Your task to perform on an android device: set the timer Image 0: 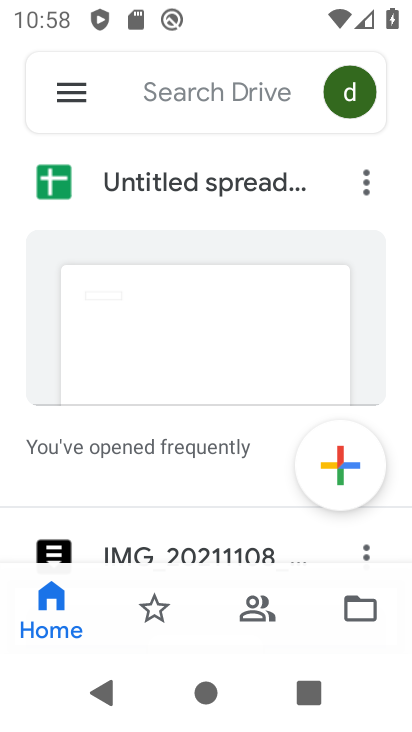
Step 0: press home button
Your task to perform on an android device: set the timer Image 1: 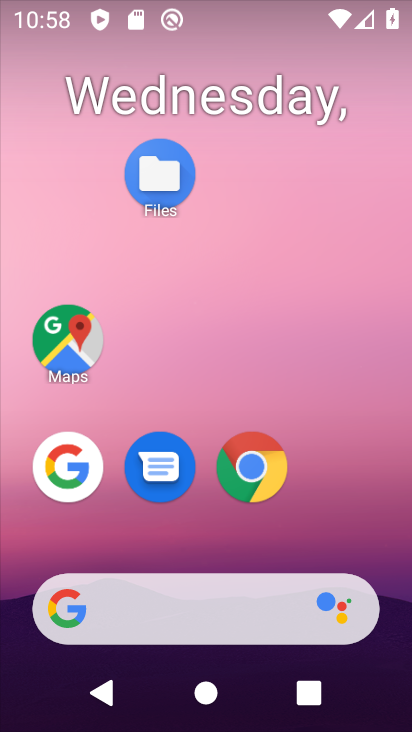
Step 1: drag from (193, 560) to (206, 146)
Your task to perform on an android device: set the timer Image 2: 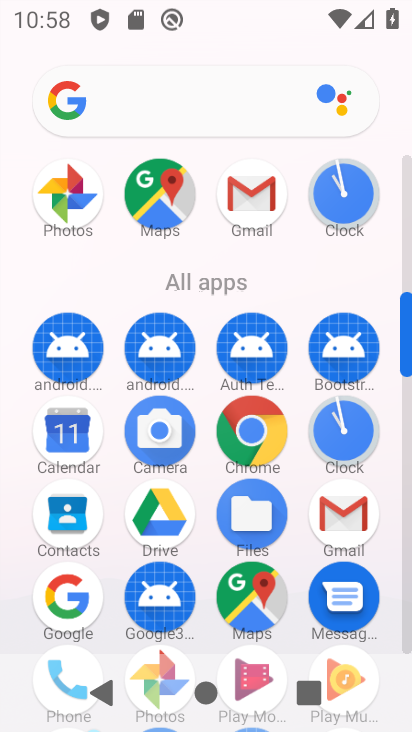
Step 2: click (344, 460)
Your task to perform on an android device: set the timer Image 3: 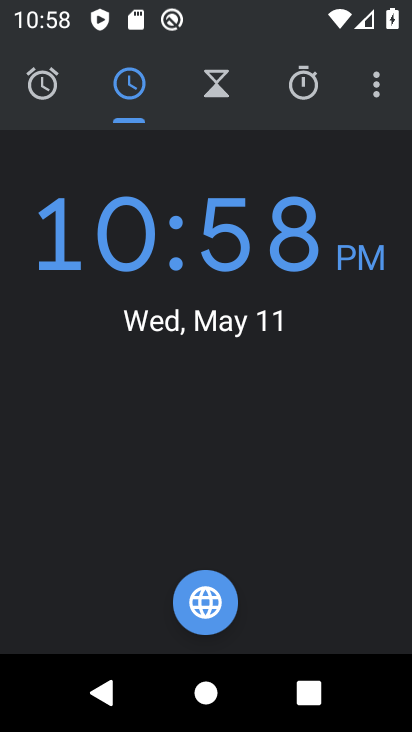
Step 3: click (205, 82)
Your task to perform on an android device: set the timer Image 4: 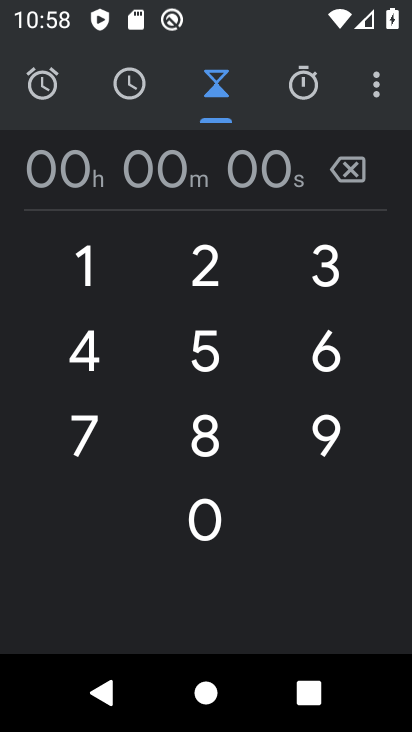
Step 4: click (201, 254)
Your task to perform on an android device: set the timer Image 5: 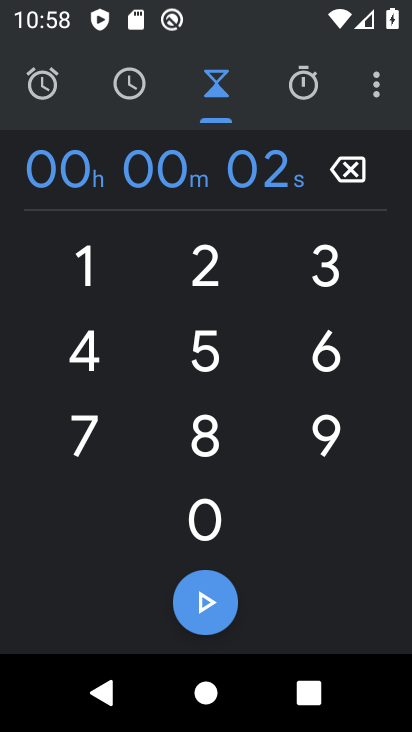
Step 5: click (231, 377)
Your task to perform on an android device: set the timer Image 6: 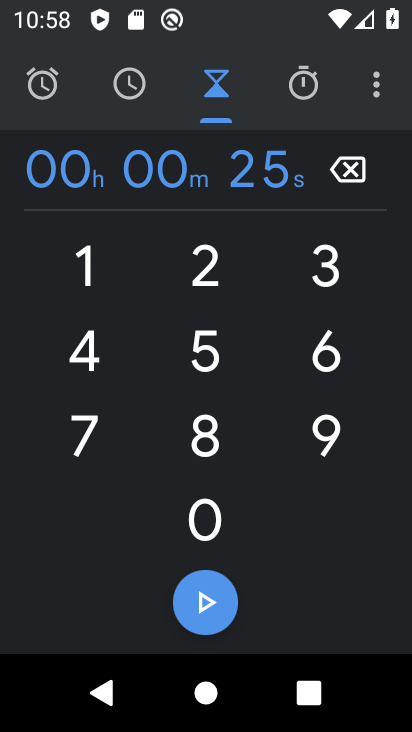
Step 6: click (222, 592)
Your task to perform on an android device: set the timer Image 7: 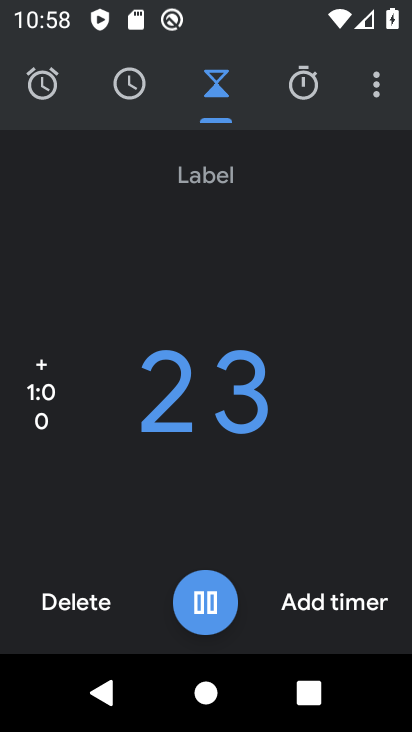
Step 7: task complete